Your task to perform on an android device: Go to Google maps Image 0: 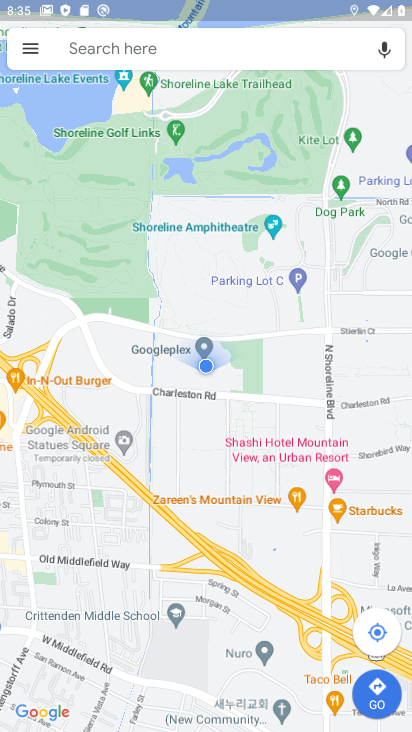
Step 0: task complete